Your task to perform on an android device: turn pop-ups off in chrome Image 0: 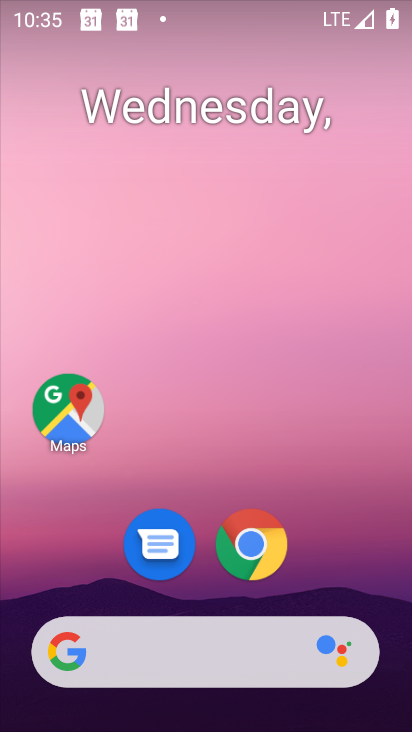
Step 0: click (239, 547)
Your task to perform on an android device: turn pop-ups off in chrome Image 1: 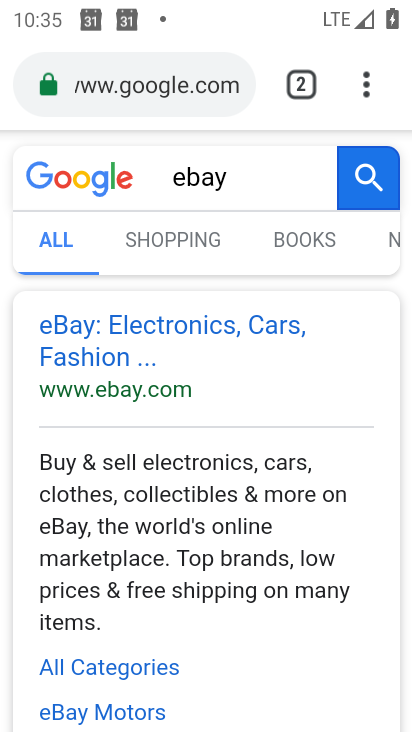
Step 1: click (360, 88)
Your task to perform on an android device: turn pop-ups off in chrome Image 2: 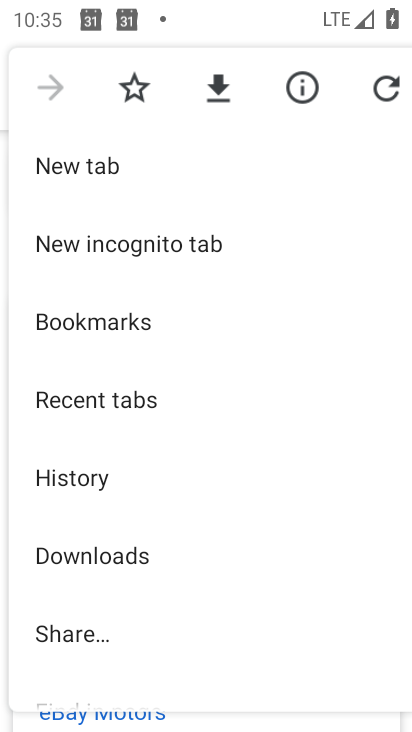
Step 2: drag from (170, 547) to (170, 234)
Your task to perform on an android device: turn pop-ups off in chrome Image 3: 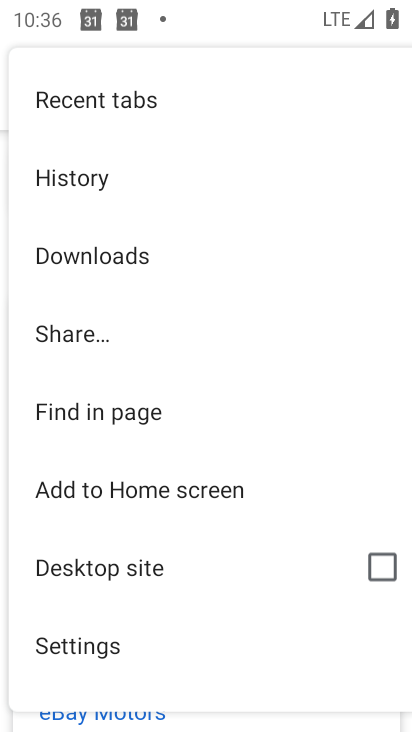
Step 3: click (110, 651)
Your task to perform on an android device: turn pop-ups off in chrome Image 4: 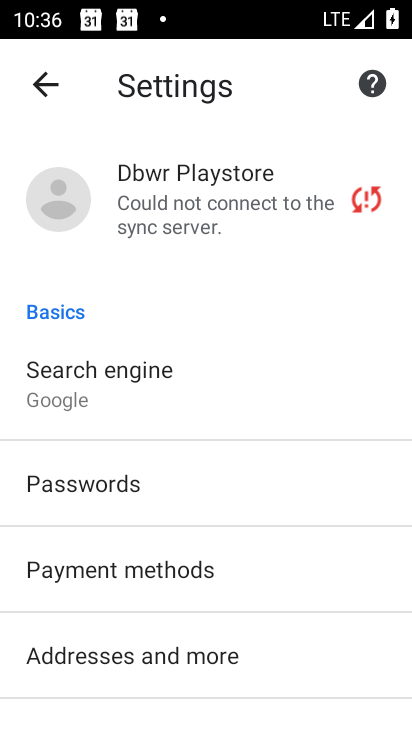
Step 4: drag from (124, 639) to (177, 280)
Your task to perform on an android device: turn pop-ups off in chrome Image 5: 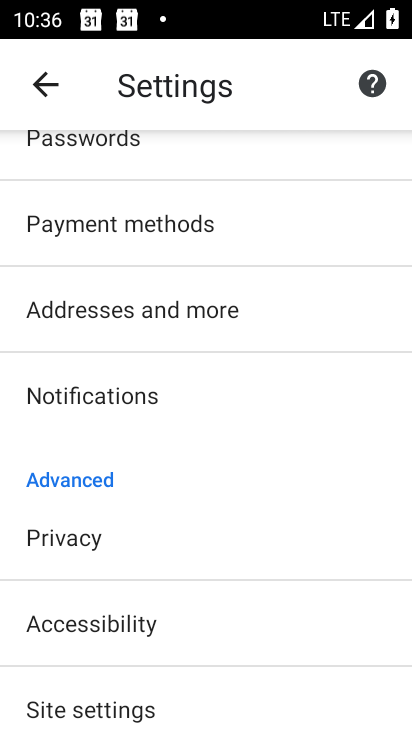
Step 5: click (89, 714)
Your task to perform on an android device: turn pop-ups off in chrome Image 6: 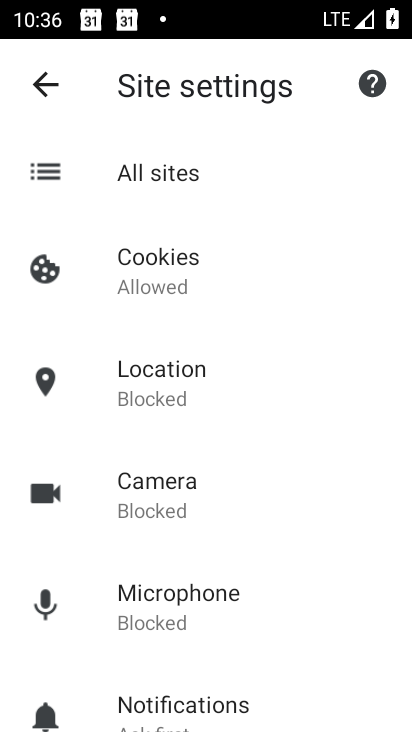
Step 6: drag from (160, 684) to (201, 393)
Your task to perform on an android device: turn pop-ups off in chrome Image 7: 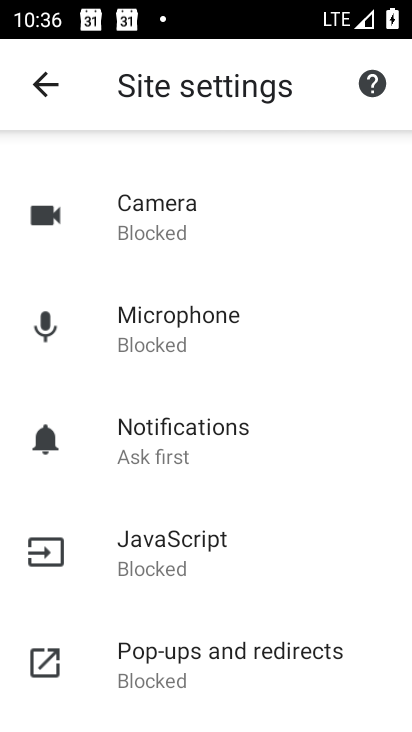
Step 7: click (158, 643)
Your task to perform on an android device: turn pop-ups off in chrome Image 8: 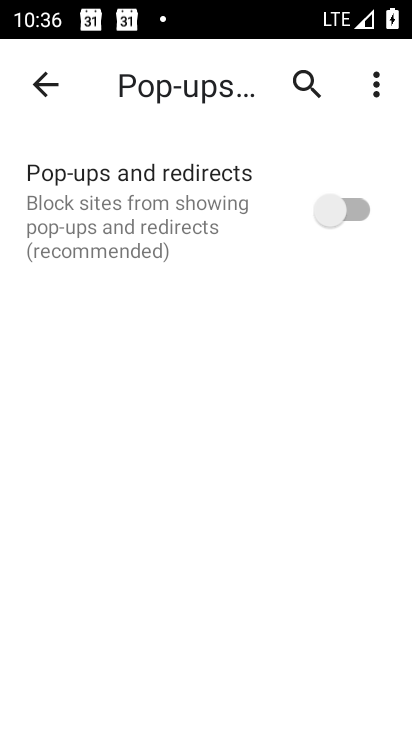
Step 8: task complete